Your task to perform on an android device: Open the phone app and click the voicemail tab. Image 0: 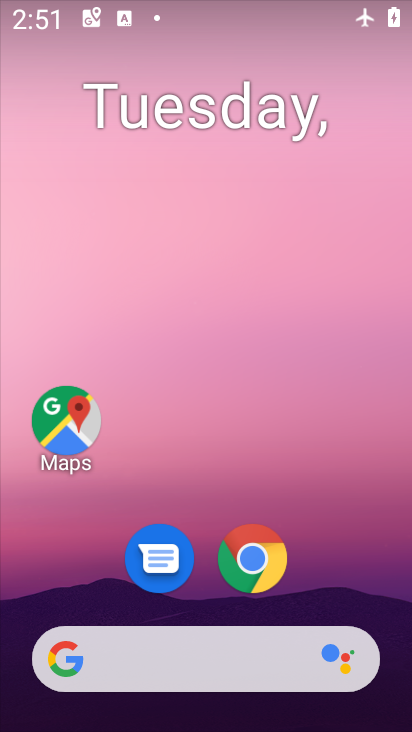
Step 0: drag from (211, 425) to (202, 56)
Your task to perform on an android device: Open the phone app and click the voicemail tab. Image 1: 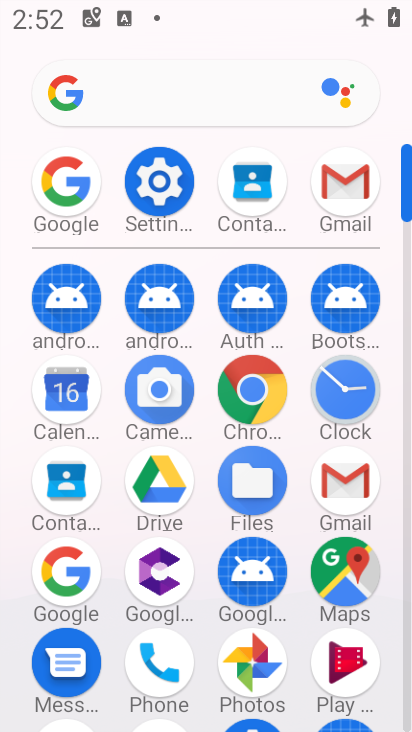
Step 1: click (143, 671)
Your task to perform on an android device: Open the phone app and click the voicemail tab. Image 2: 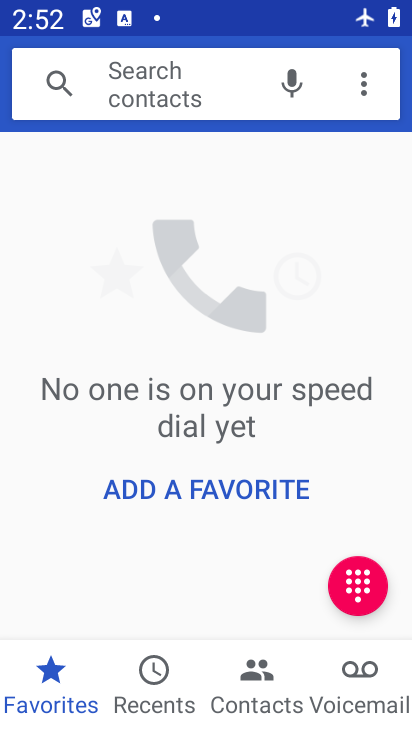
Step 2: click (350, 667)
Your task to perform on an android device: Open the phone app and click the voicemail tab. Image 3: 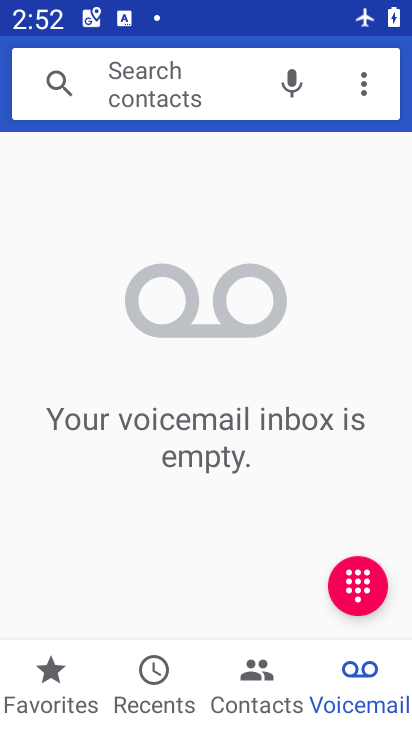
Step 3: task complete